Your task to perform on an android device: Open Maps and search for coffee Image 0: 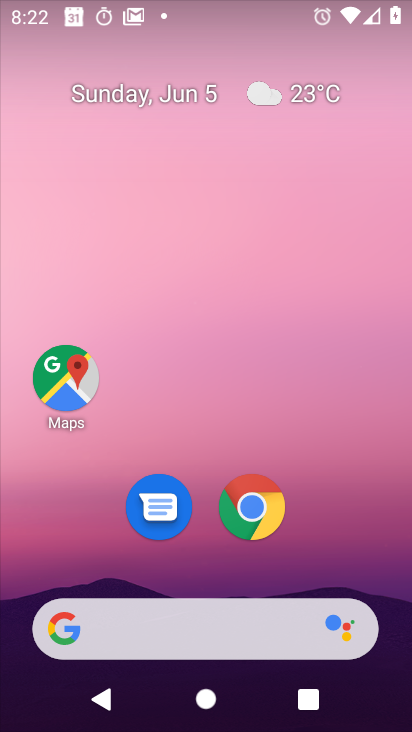
Step 0: drag from (260, 662) to (228, 51)
Your task to perform on an android device: Open Maps and search for coffee Image 1: 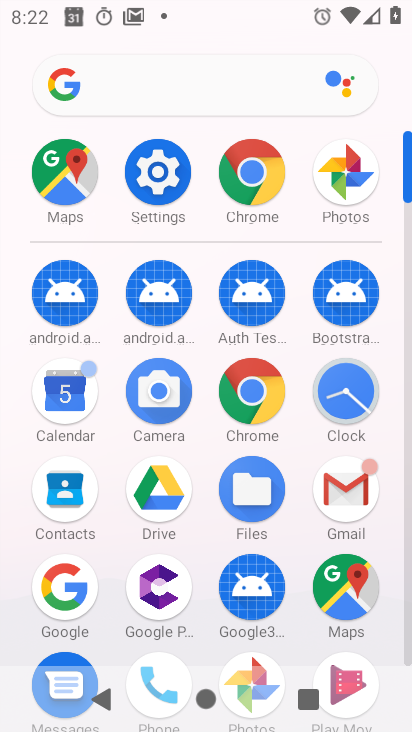
Step 1: click (82, 195)
Your task to perform on an android device: Open Maps and search for coffee Image 2: 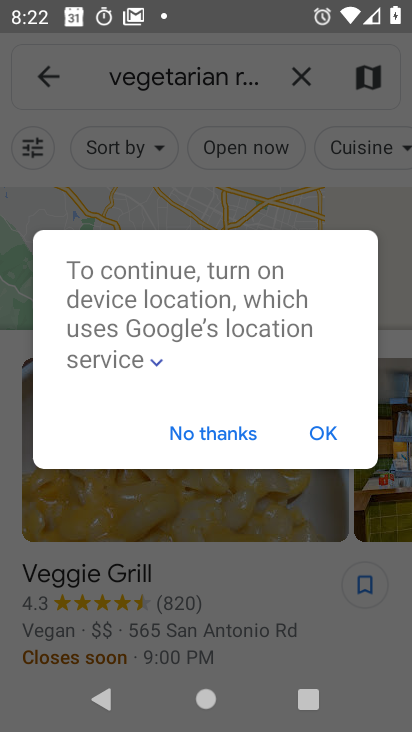
Step 2: click (226, 434)
Your task to perform on an android device: Open Maps and search for coffee Image 3: 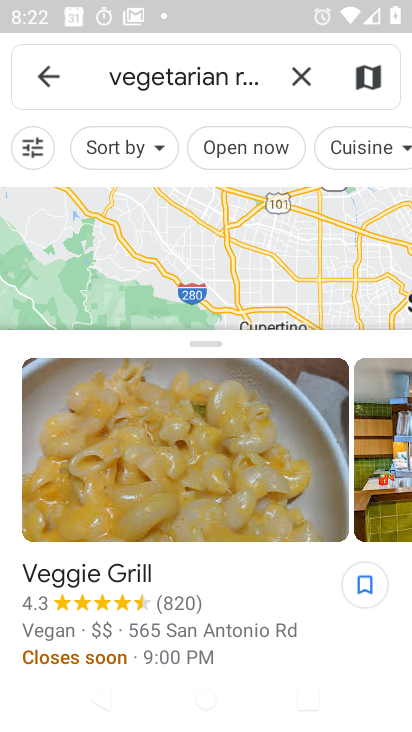
Step 3: click (298, 78)
Your task to perform on an android device: Open Maps and search for coffee Image 4: 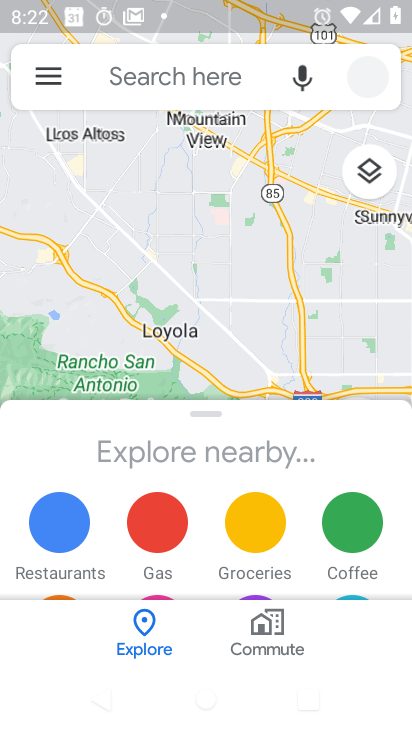
Step 4: click (165, 89)
Your task to perform on an android device: Open Maps and search for coffee Image 5: 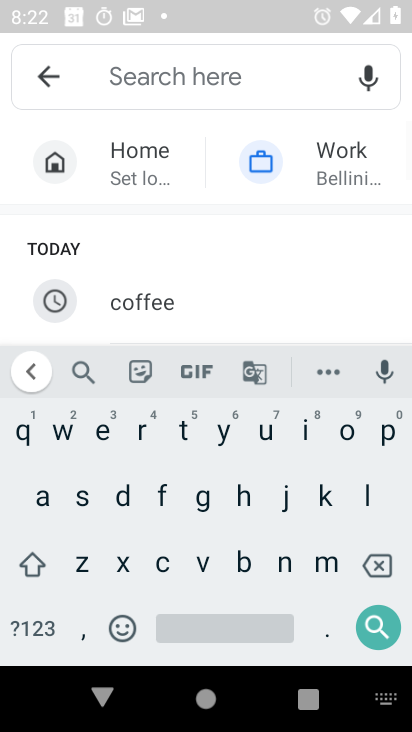
Step 5: click (159, 552)
Your task to perform on an android device: Open Maps and search for coffee Image 6: 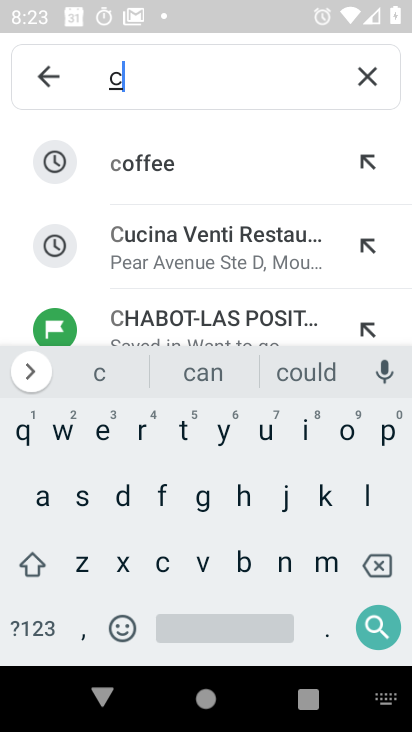
Step 6: click (180, 187)
Your task to perform on an android device: Open Maps and search for coffee Image 7: 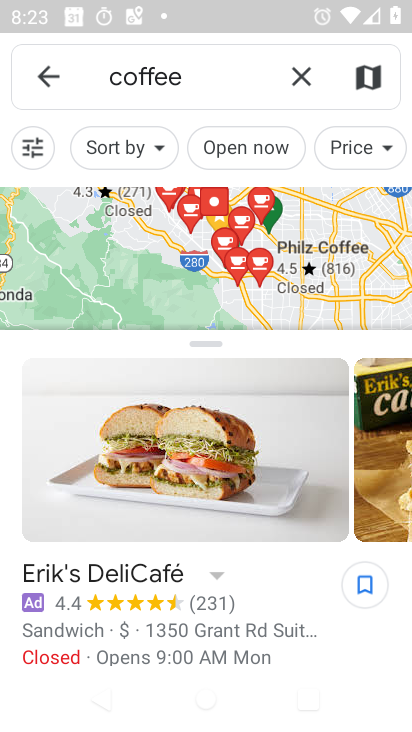
Step 7: click (169, 229)
Your task to perform on an android device: Open Maps and search for coffee Image 8: 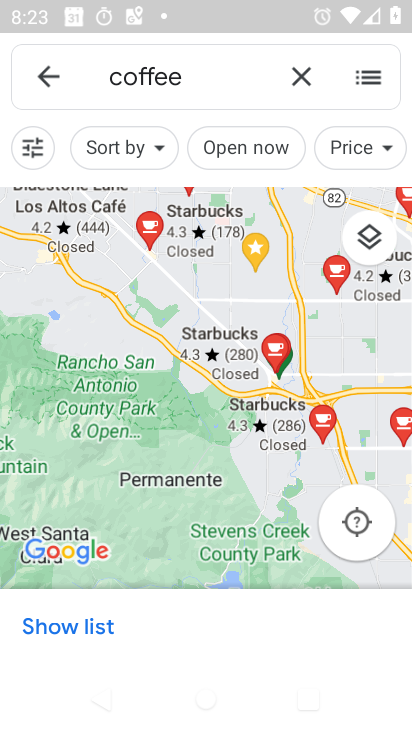
Step 8: task complete